Your task to perform on an android device: Open my contact list Image 0: 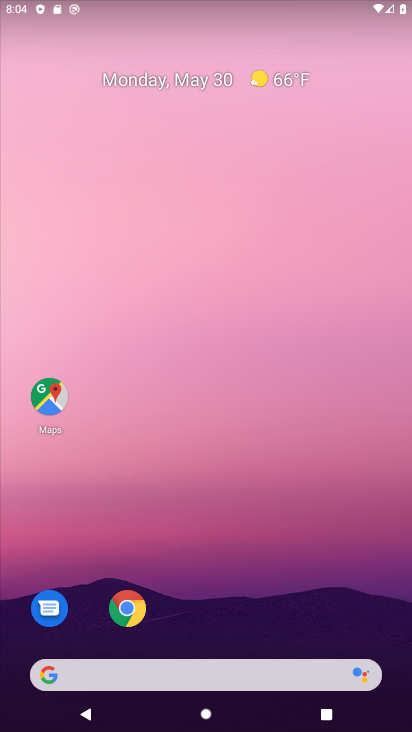
Step 0: drag from (238, 712) to (240, 2)
Your task to perform on an android device: Open my contact list Image 1: 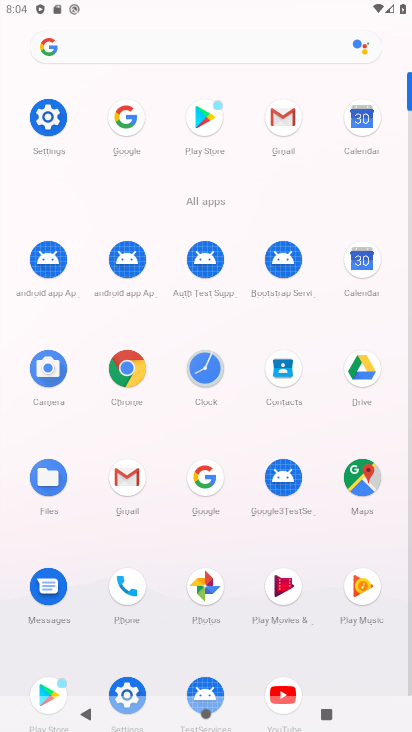
Step 1: click (280, 374)
Your task to perform on an android device: Open my contact list Image 2: 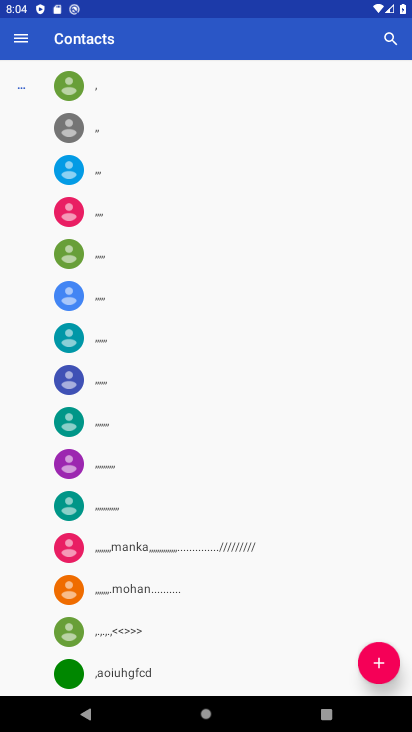
Step 2: task complete